Your task to perform on an android device: Turn off the flashlight Image 0: 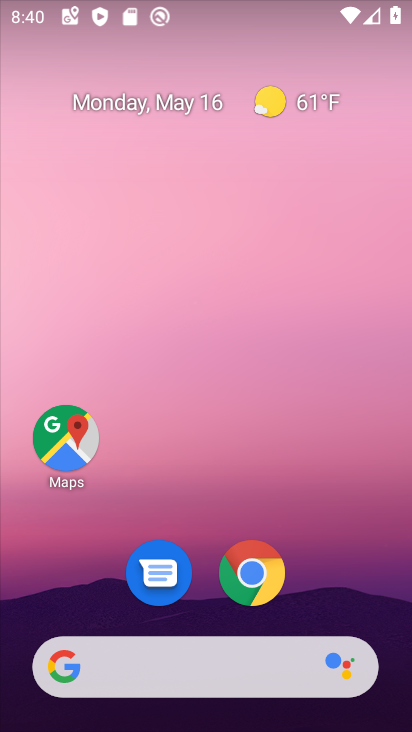
Step 0: drag from (217, 726) to (215, 147)
Your task to perform on an android device: Turn off the flashlight Image 1: 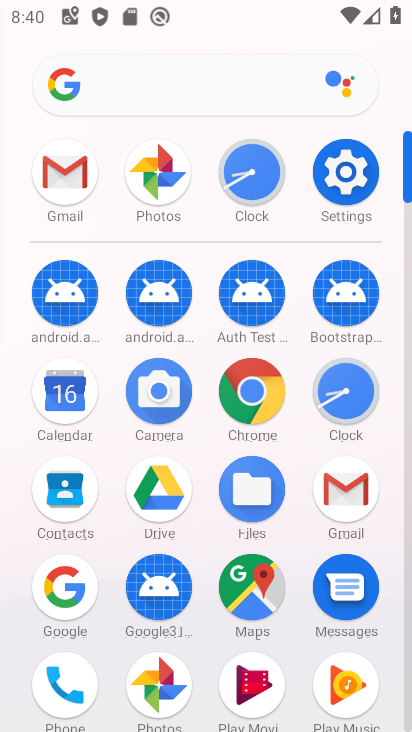
Step 1: click (347, 175)
Your task to perform on an android device: Turn off the flashlight Image 2: 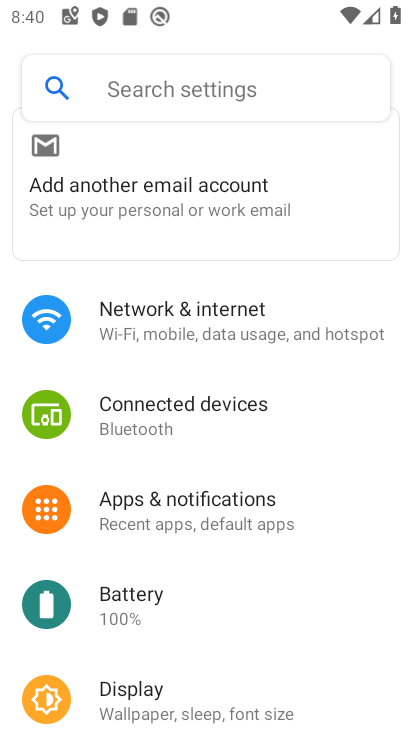
Step 2: task complete